Your task to perform on an android device: change keyboard looks Image 0: 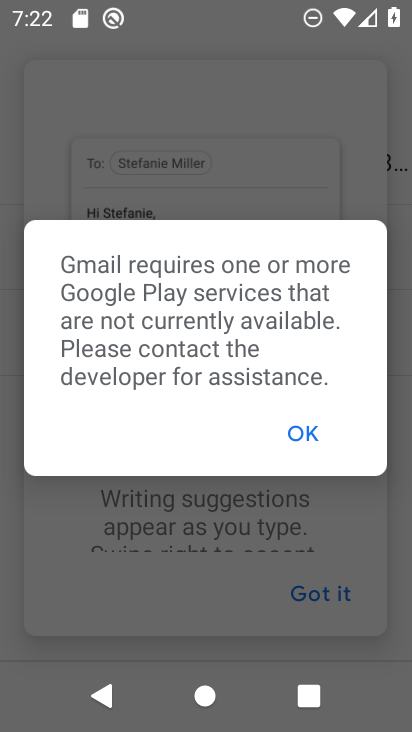
Step 0: press home button
Your task to perform on an android device: change keyboard looks Image 1: 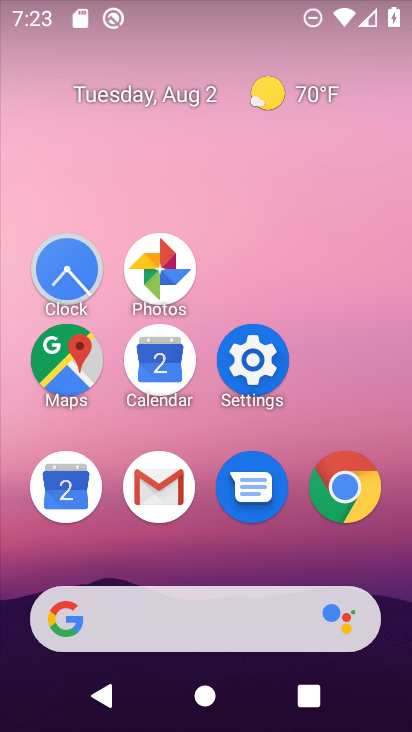
Step 1: click (244, 362)
Your task to perform on an android device: change keyboard looks Image 2: 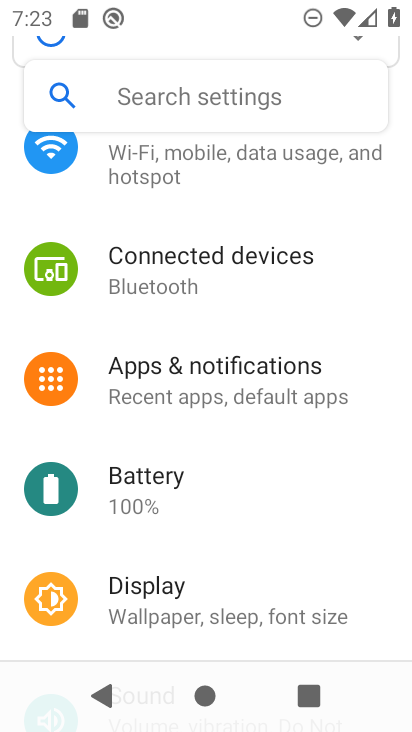
Step 2: drag from (254, 574) to (229, 204)
Your task to perform on an android device: change keyboard looks Image 3: 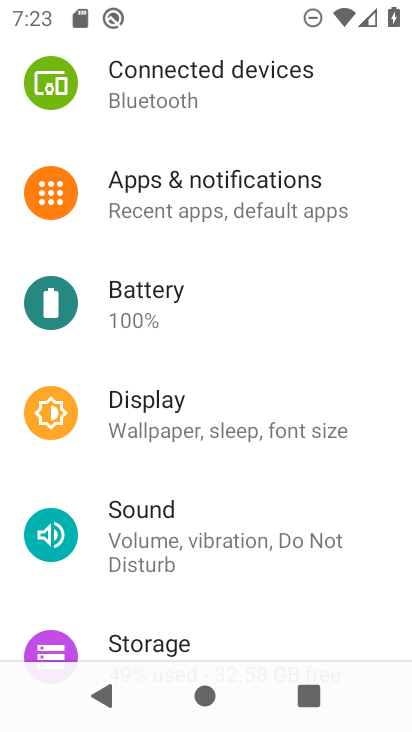
Step 3: drag from (255, 617) to (258, 337)
Your task to perform on an android device: change keyboard looks Image 4: 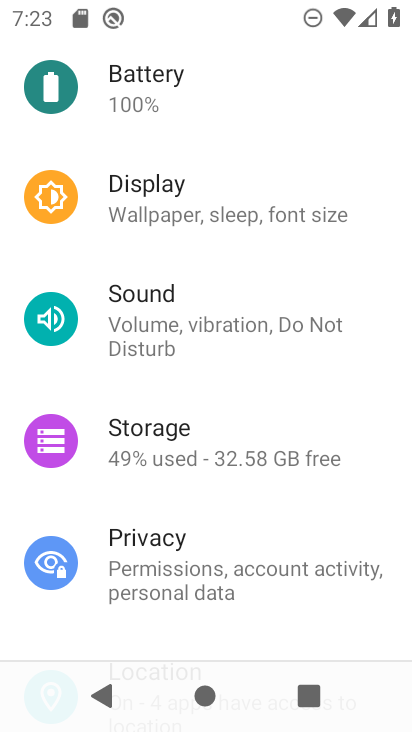
Step 4: drag from (251, 513) to (232, 0)
Your task to perform on an android device: change keyboard looks Image 5: 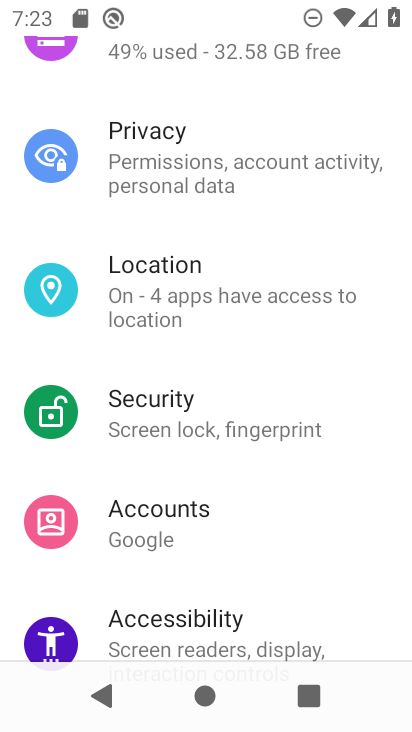
Step 5: drag from (267, 579) to (286, 231)
Your task to perform on an android device: change keyboard looks Image 6: 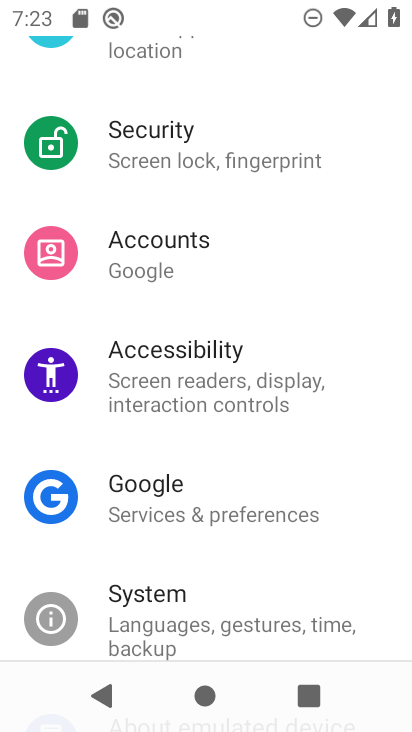
Step 6: drag from (259, 555) to (230, 45)
Your task to perform on an android device: change keyboard looks Image 7: 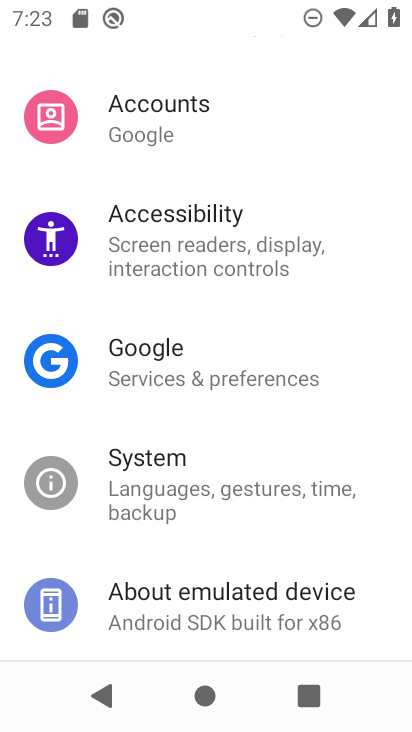
Step 7: click (144, 467)
Your task to perform on an android device: change keyboard looks Image 8: 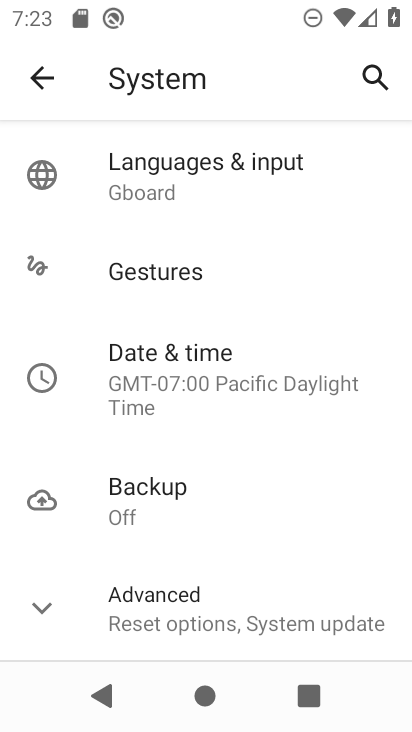
Step 8: click (158, 173)
Your task to perform on an android device: change keyboard looks Image 9: 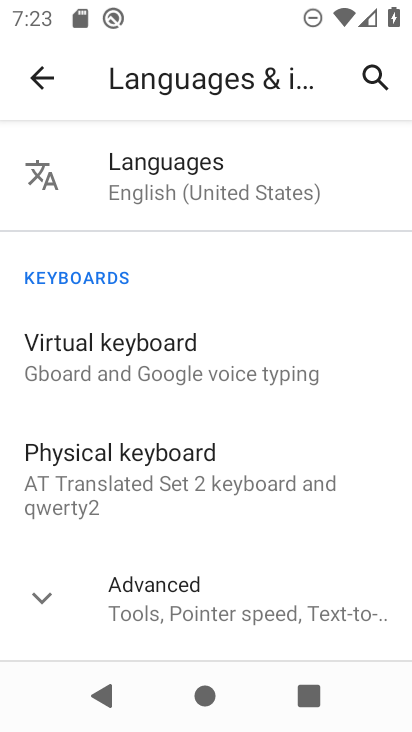
Step 9: click (108, 348)
Your task to perform on an android device: change keyboard looks Image 10: 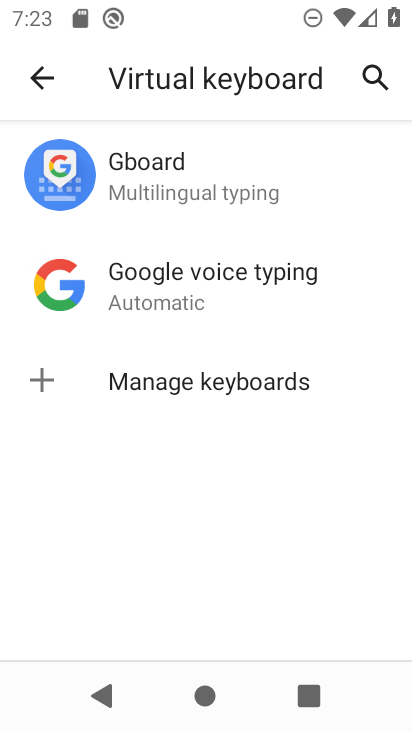
Step 10: click (160, 166)
Your task to perform on an android device: change keyboard looks Image 11: 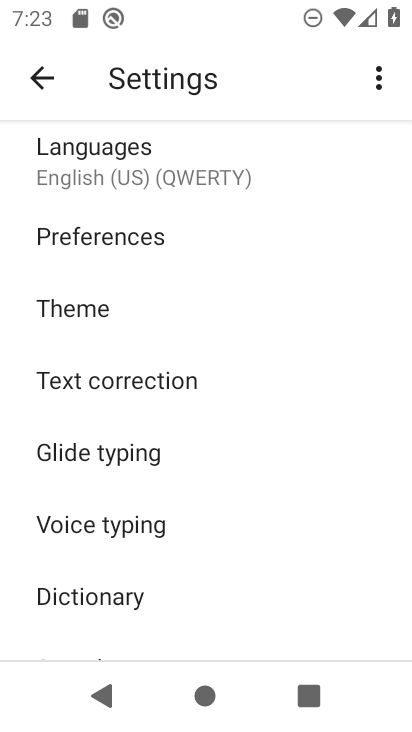
Step 11: click (64, 308)
Your task to perform on an android device: change keyboard looks Image 12: 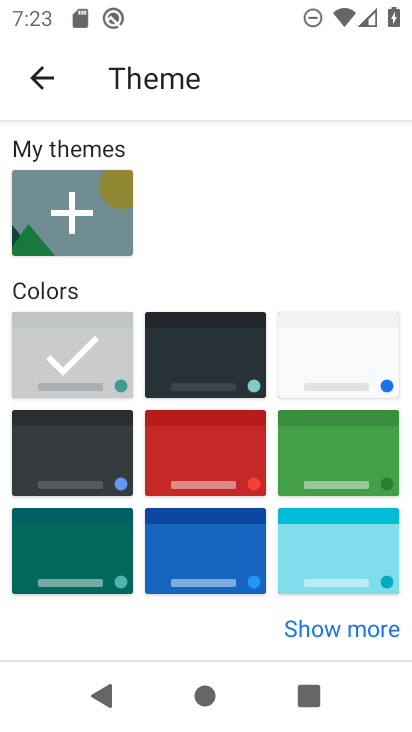
Step 12: click (195, 463)
Your task to perform on an android device: change keyboard looks Image 13: 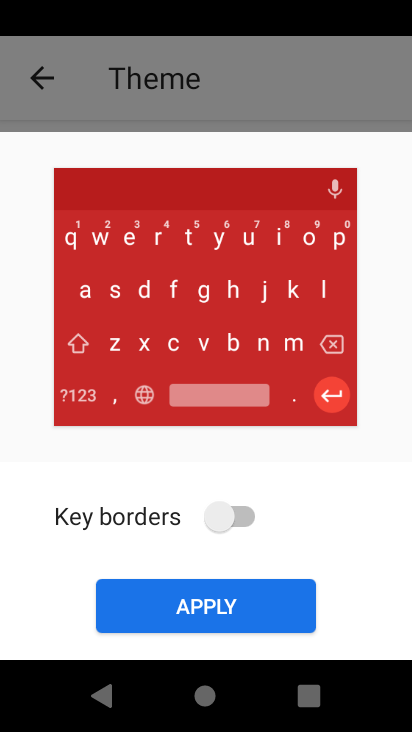
Step 13: click (215, 597)
Your task to perform on an android device: change keyboard looks Image 14: 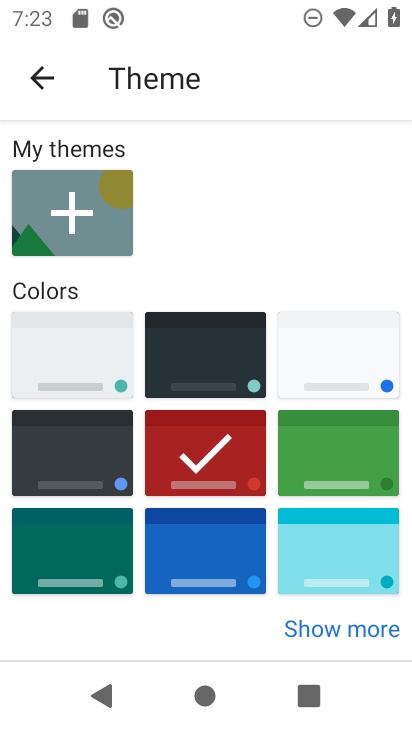
Step 14: task complete